Your task to perform on an android device: turn notification dots on Image 0: 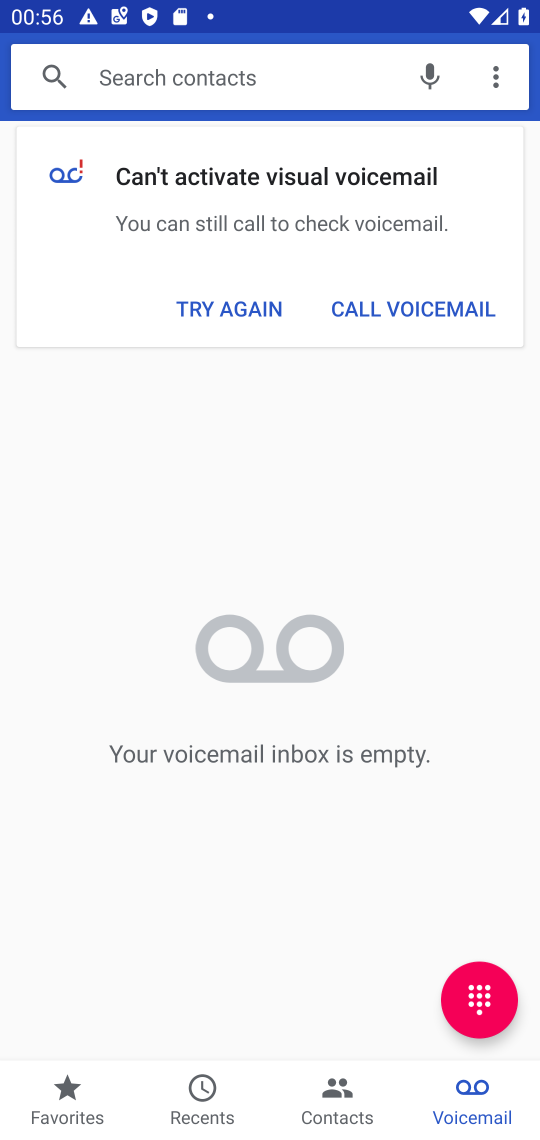
Step 0: press home button
Your task to perform on an android device: turn notification dots on Image 1: 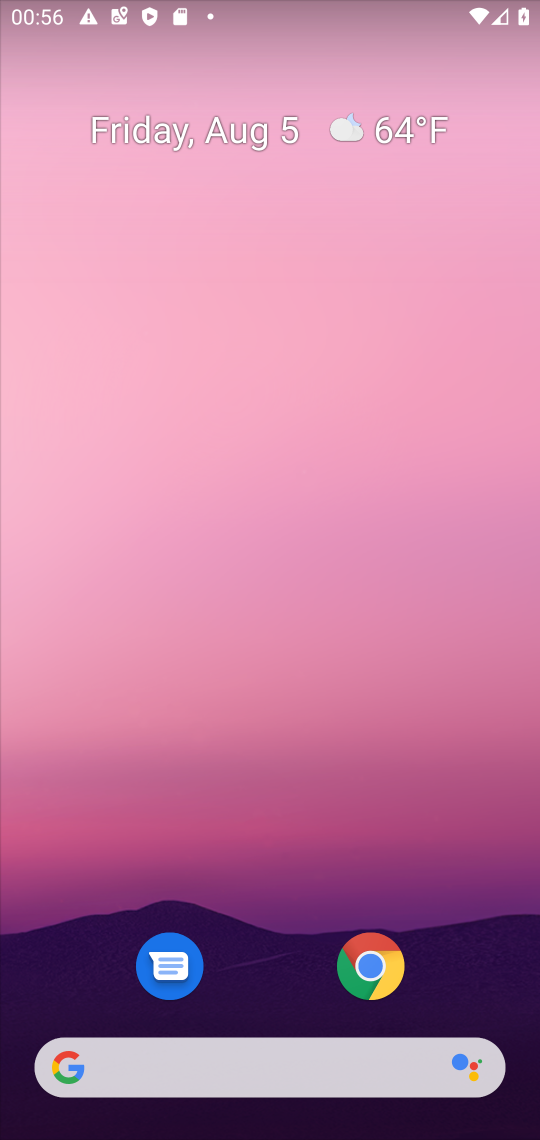
Step 1: drag from (244, 964) to (346, 59)
Your task to perform on an android device: turn notification dots on Image 2: 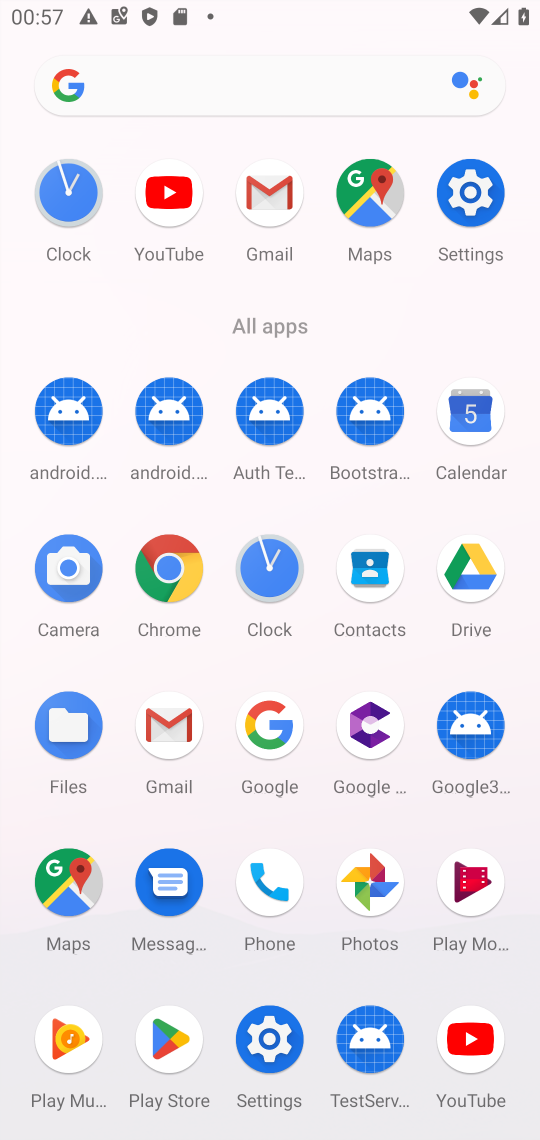
Step 2: click (459, 195)
Your task to perform on an android device: turn notification dots on Image 3: 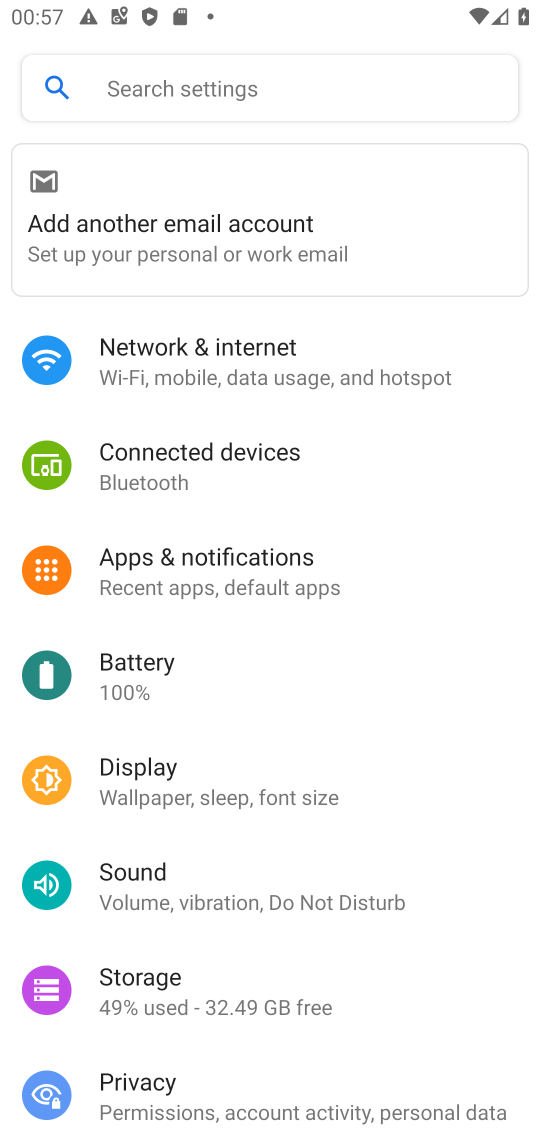
Step 3: click (269, 580)
Your task to perform on an android device: turn notification dots on Image 4: 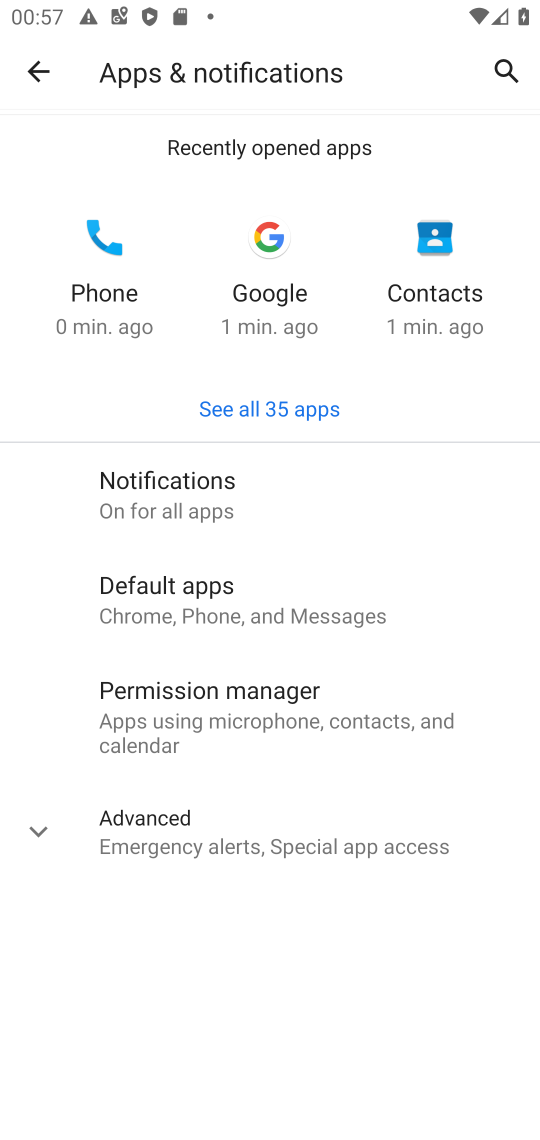
Step 4: click (208, 486)
Your task to perform on an android device: turn notification dots on Image 5: 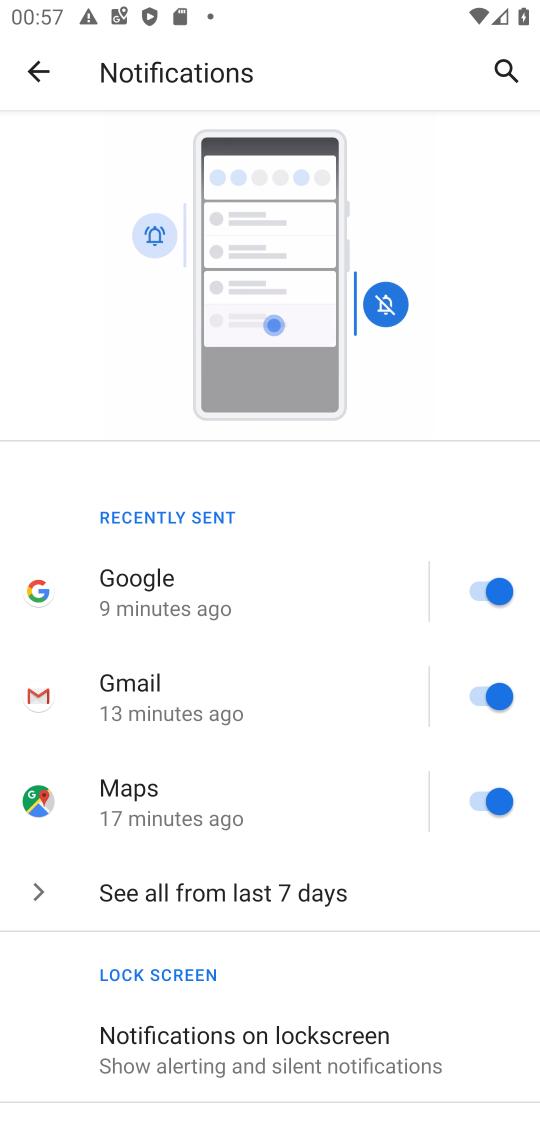
Step 5: drag from (271, 923) to (406, 164)
Your task to perform on an android device: turn notification dots on Image 6: 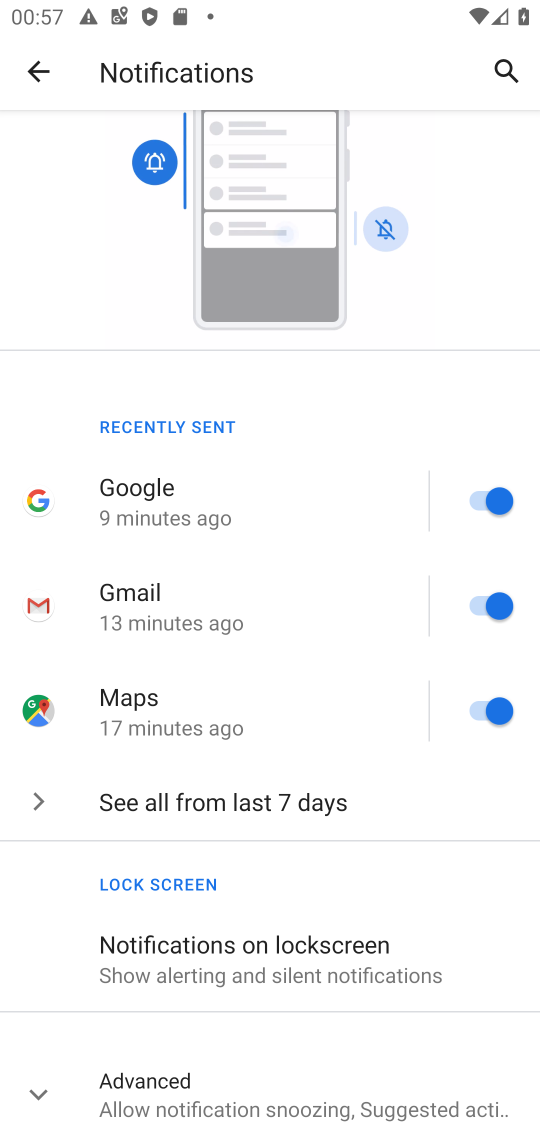
Step 6: click (24, 1088)
Your task to perform on an android device: turn notification dots on Image 7: 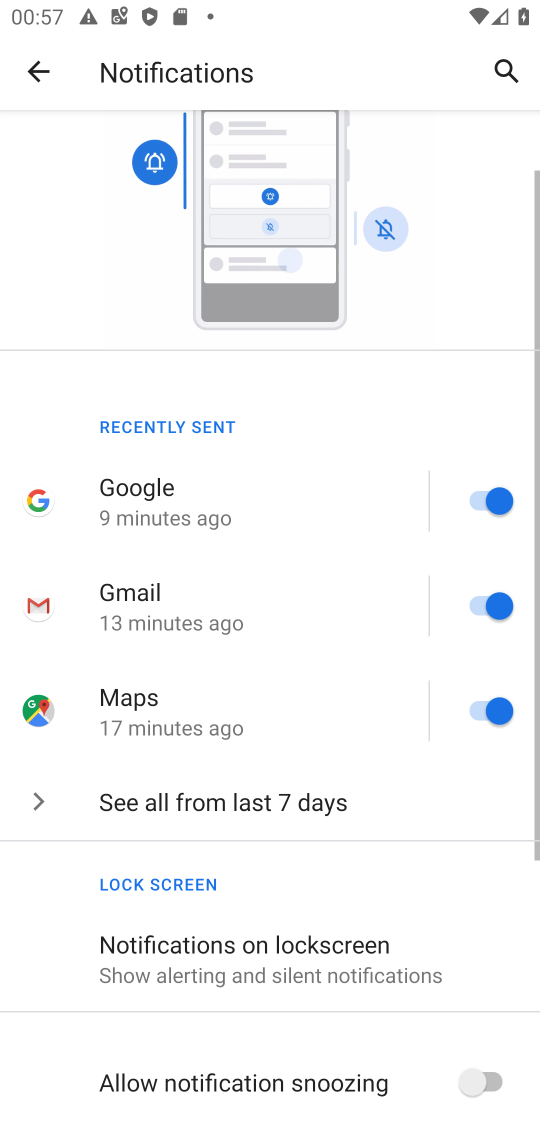
Step 7: drag from (308, 899) to (372, 142)
Your task to perform on an android device: turn notification dots on Image 8: 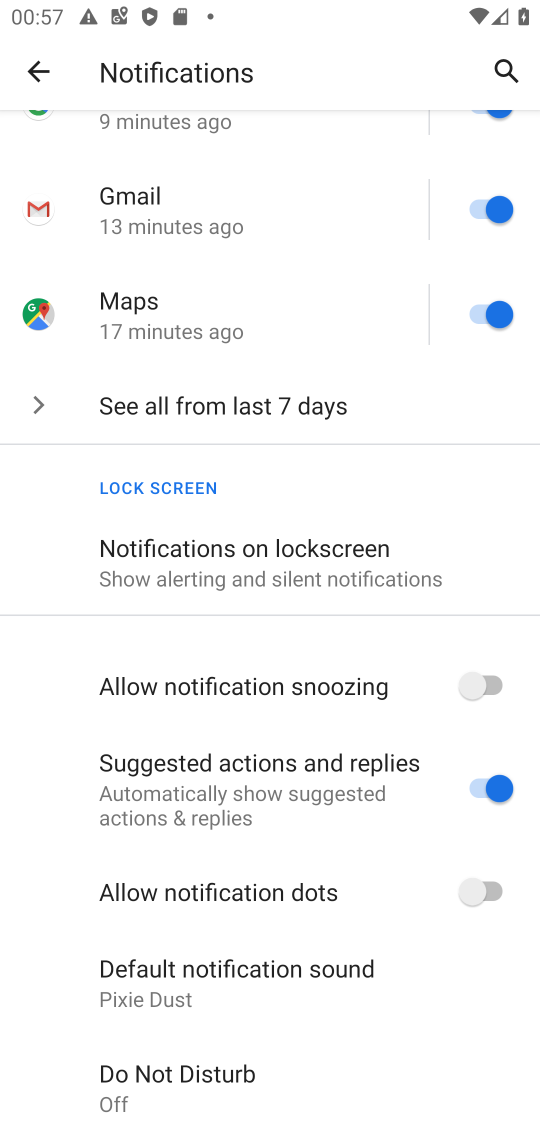
Step 8: click (468, 883)
Your task to perform on an android device: turn notification dots on Image 9: 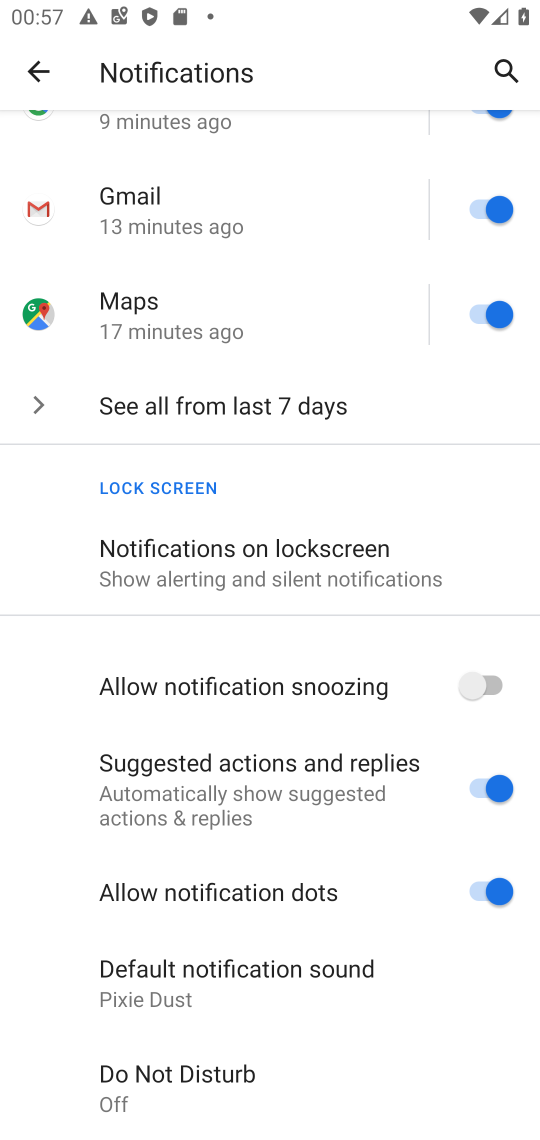
Step 9: task complete